Your task to perform on an android device: Open Chrome and go to the settings page Image 0: 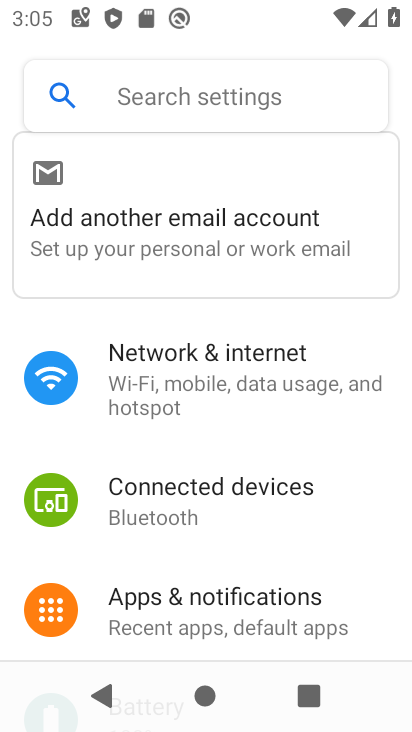
Step 0: press home button
Your task to perform on an android device: Open Chrome and go to the settings page Image 1: 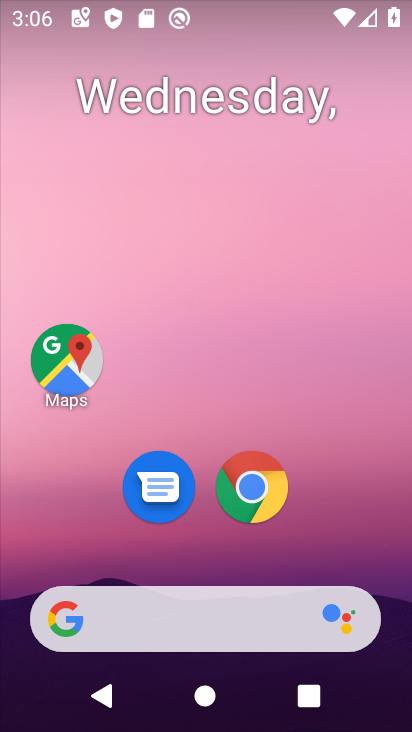
Step 1: click (272, 514)
Your task to perform on an android device: Open Chrome and go to the settings page Image 2: 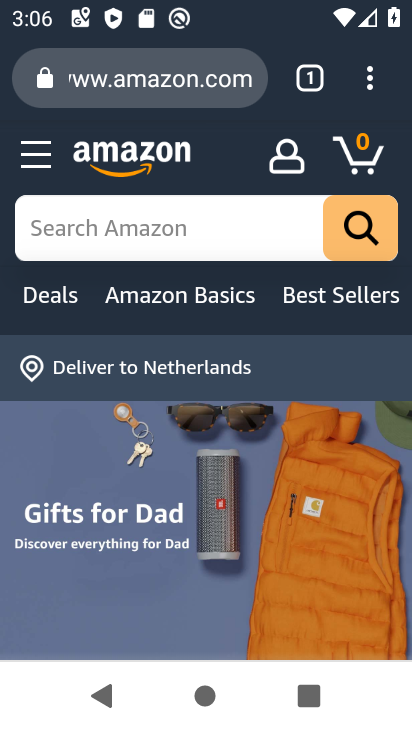
Step 2: click (367, 84)
Your task to perform on an android device: Open Chrome and go to the settings page Image 3: 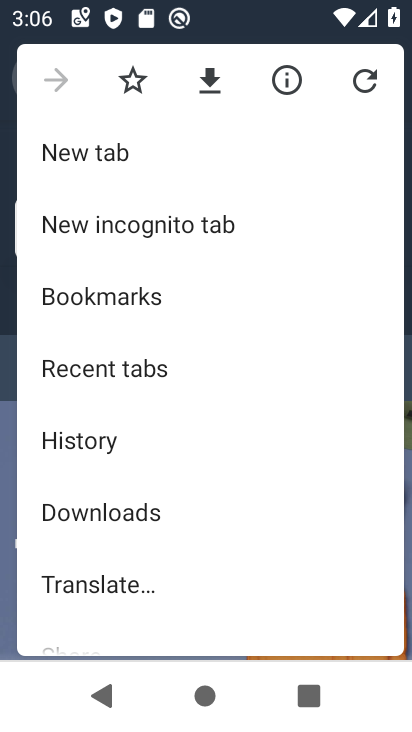
Step 3: drag from (231, 589) to (251, 103)
Your task to perform on an android device: Open Chrome and go to the settings page Image 4: 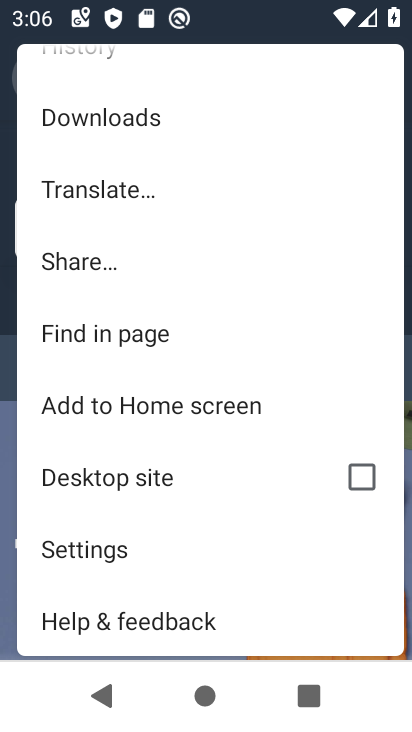
Step 4: click (167, 545)
Your task to perform on an android device: Open Chrome and go to the settings page Image 5: 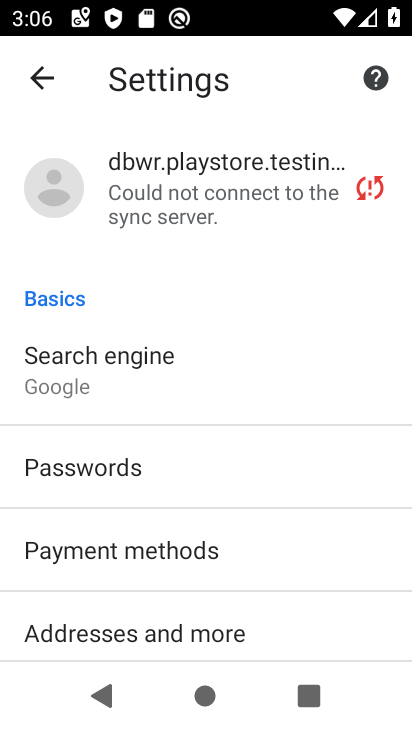
Step 5: task complete